Your task to perform on an android device: change timer sound Image 0: 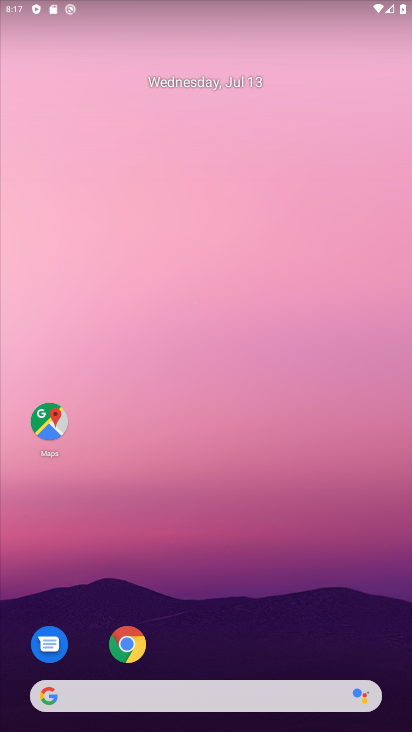
Step 0: drag from (203, 721) to (208, 7)
Your task to perform on an android device: change timer sound Image 1: 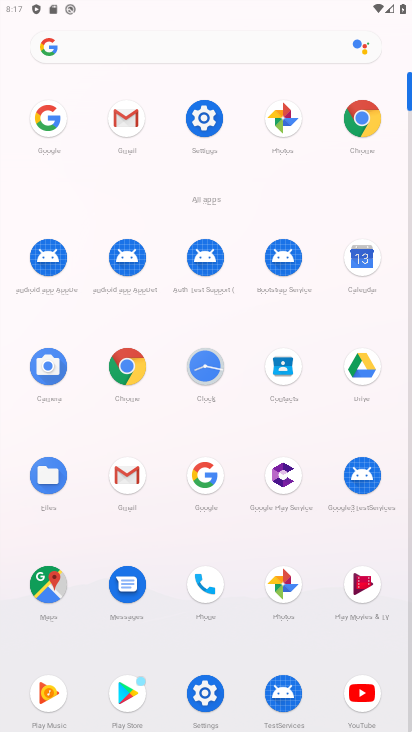
Step 1: click (207, 364)
Your task to perform on an android device: change timer sound Image 2: 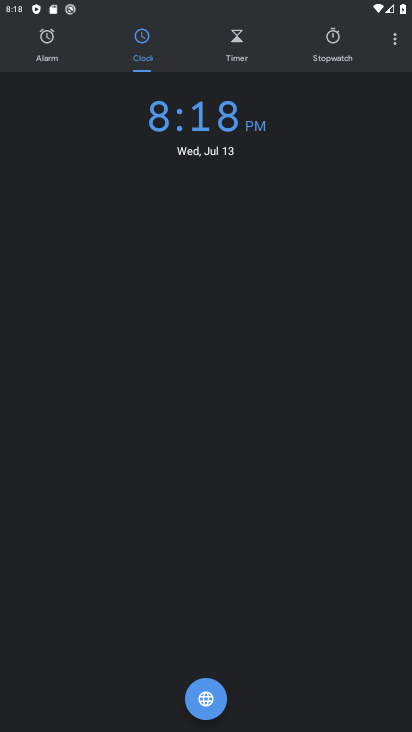
Step 2: click (396, 44)
Your task to perform on an android device: change timer sound Image 3: 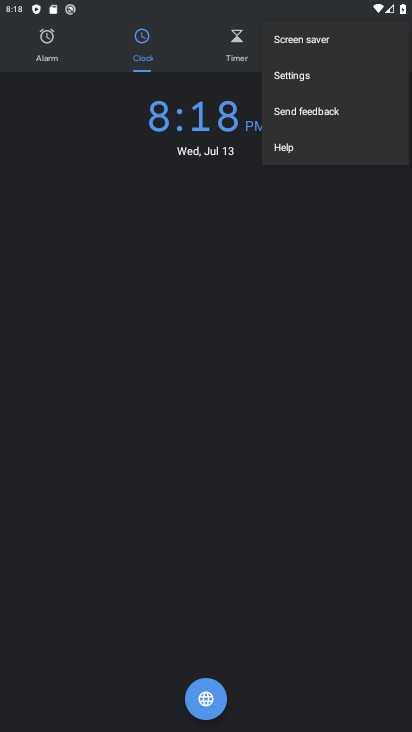
Step 3: click (293, 74)
Your task to perform on an android device: change timer sound Image 4: 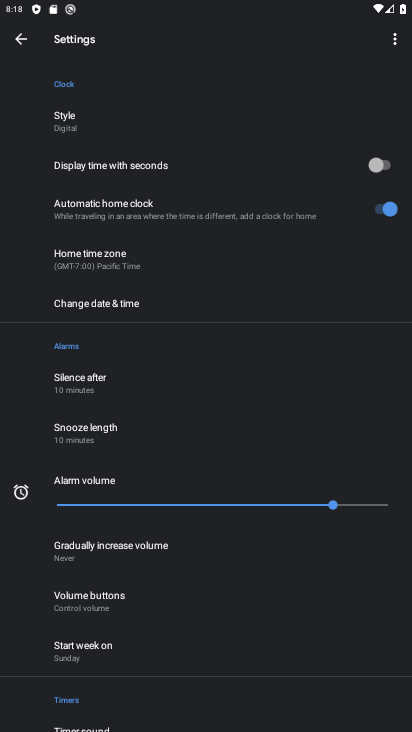
Step 4: click (72, 727)
Your task to perform on an android device: change timer sound Image 5: 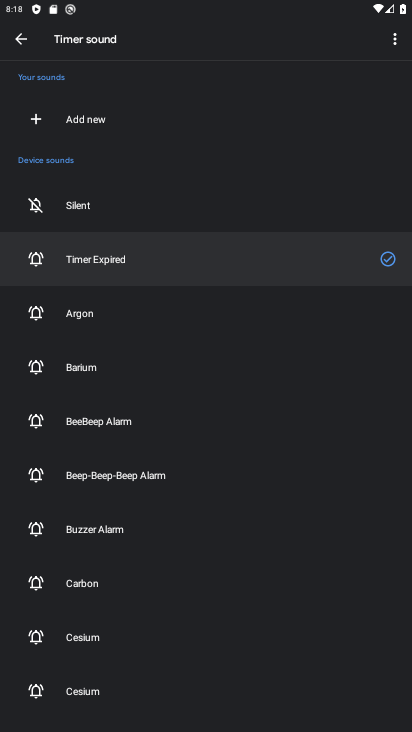
Step 5: click (77, 525)
Your task to perform on an android device: change timer sound Image 6: 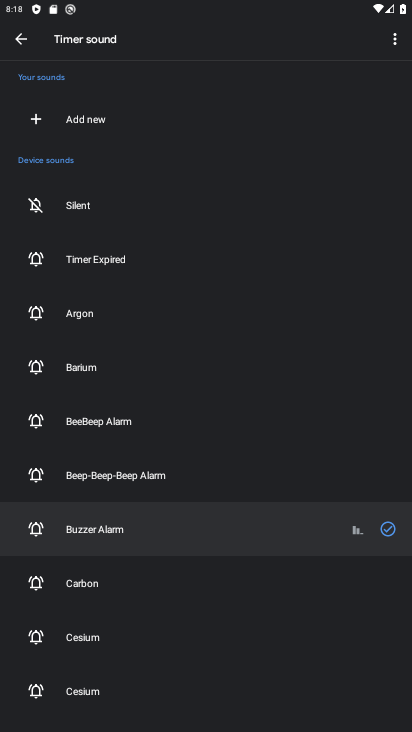
Step 6: task complete